Your task to perform on an android device: set the timer Image 0: 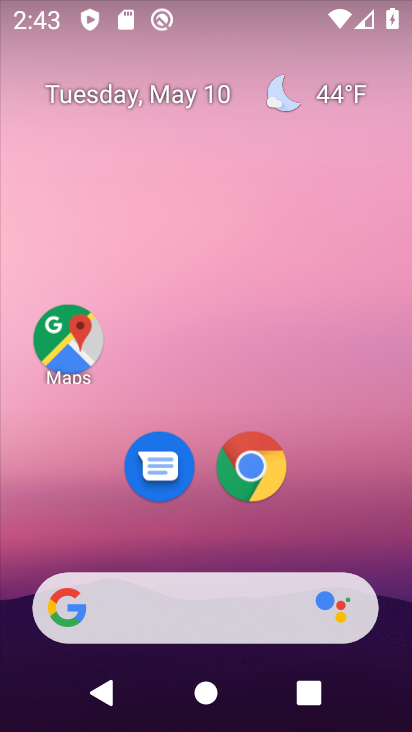
Step 0: drag from (333, 546) to (222, 23)
Your task to perform on an android device: set the timer Image 1: 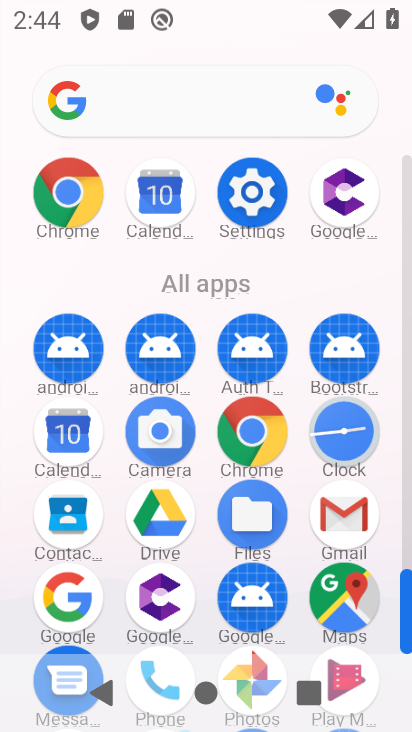
Step 1: click (347, 431)
Your task to perform on an android device: set the timer Image 2: 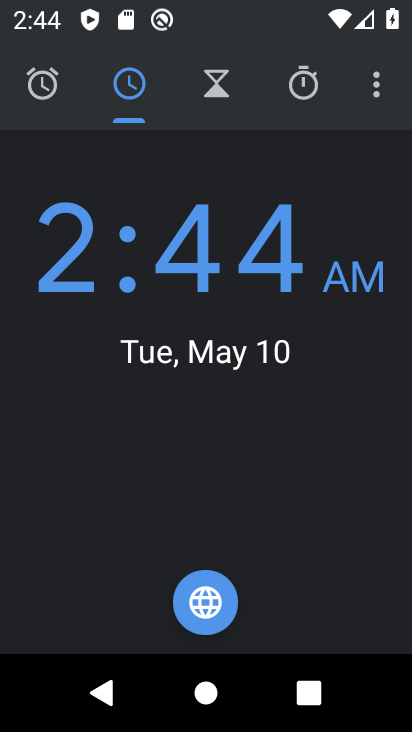
Step 2: click (223, 86)
Your task to perform on an android device: set the timer Image 3: 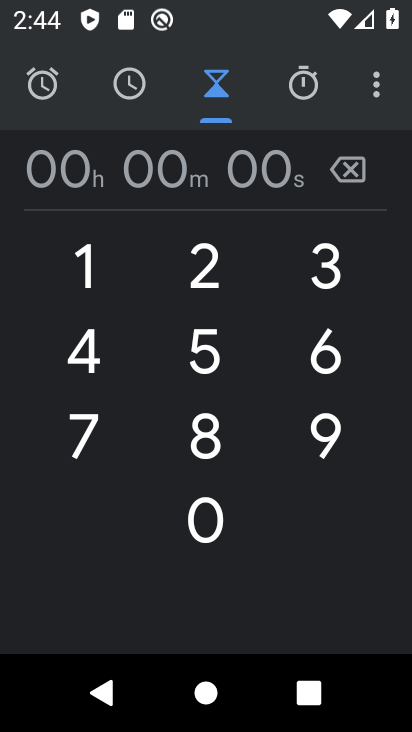
Step 3: type "123"
Your task to perform on an android device: set the timer Image 4: 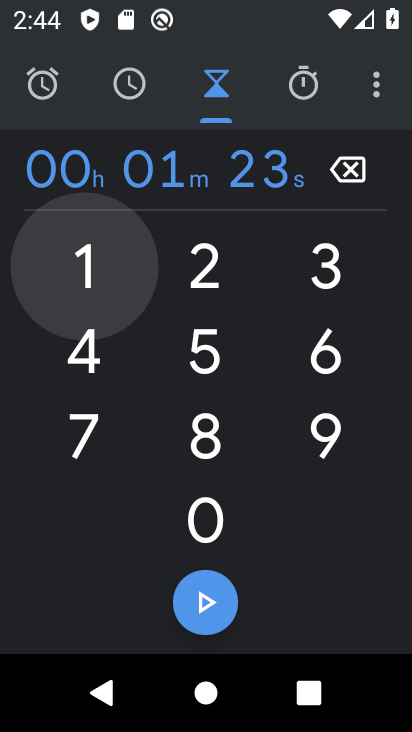
Step 4: click (202, 606)
Your task to perform on an android device: set the timer Image 5: 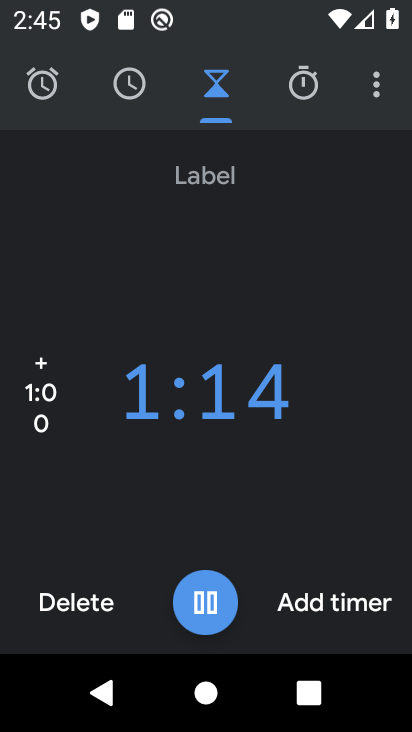
Step 5: click (202, 604)
Your task to perform on an android device: set the timer Image 6: 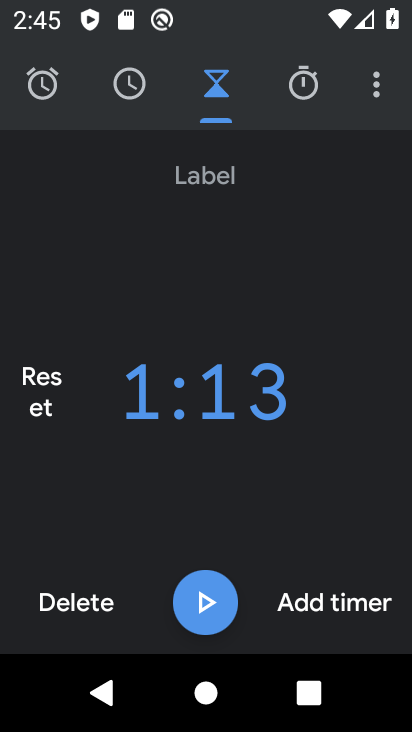
Step 6: task complete